Your task to perform on an android device: Empty the shopping cart on newegg. Search for "razer naga" on newegg, select the first entry, and add it to the cart. Image 0: 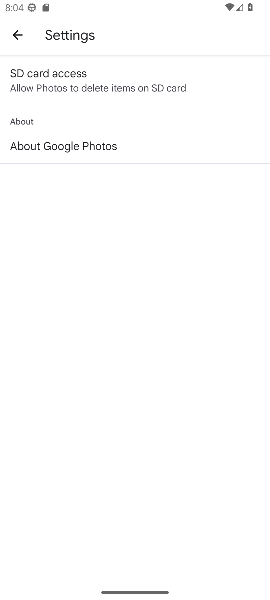
Step 0: press home button
Your task to perform on an android device: Empty the shopping cart on newegg. Search for "razer naga" on newegg, select the first entry, and add it to the cart. Image 1: 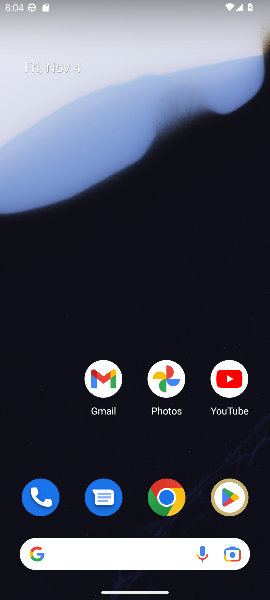
Step 1: click (166, 509)
Your task to perform on an android device: Empty the shopping cart on newegg. Search for "razer naga" on newegg, select the first entry, and add it to the cart. Image 2: 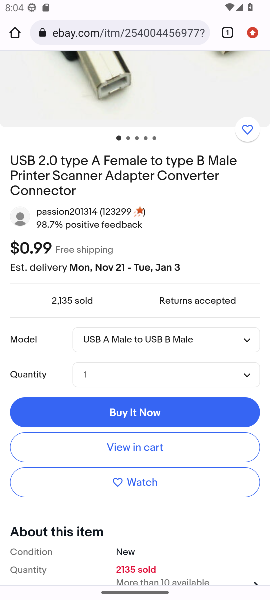
Step 2: click (57, 36)
Your task to perform on an android device: Empty the shopping cart on newegg. Search for "razer naga" on newegg, select the first entry, and add it to the cart. Image 3: 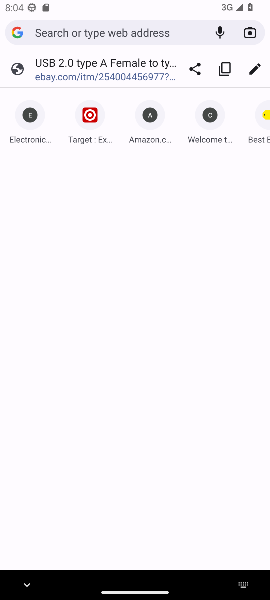
Step 3: type "newegg.com"
Your task to perform on an android device: Empty the shopping cart on newegg. Search for "razer naga" on newegg, select the first entry, and add it to the cart. Image 4: 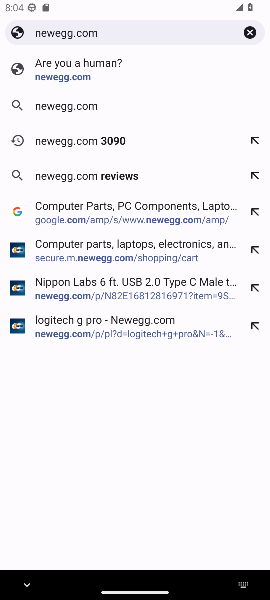
Step 4: click (78, 107)
Your task to perform on an android device: Empty the shopping cart on newegg. Search for "razer naga" on newegg, select the first entry, and add it to the cart. Image 5: 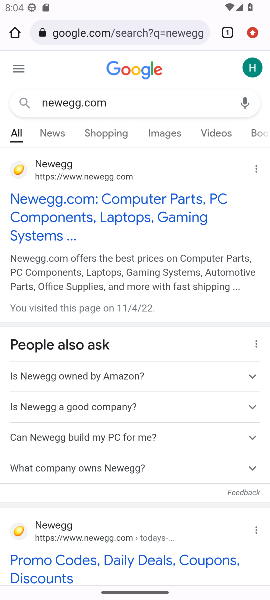
Step 5: click (42, 215)
Your task to perform on an android device: Empty the shopping cart on newegg. Search for "razer naga" on newegg, select the first entry, and add it to the cart. Image 6: 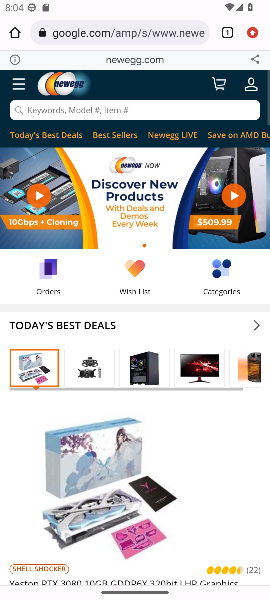
Step 6: click (217, 81)
Your task to perform on an android device: Empty the shopping cart on newegg. Search for "razer naga" on newegg, select the first entry, and add it to the cart. Image 7: 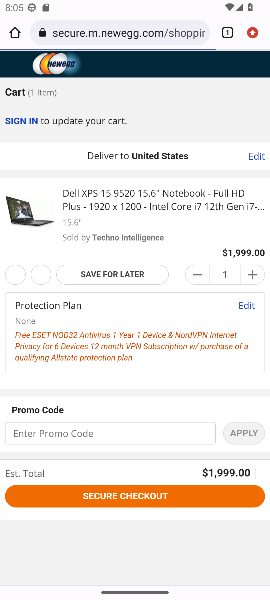
Step 7: click (217, 81)
Your task to perform on an android device: Empty the shopping cart on newegg. Search for "razer naga" on newegg, select the first entry, and add it to the cart. Image 8: 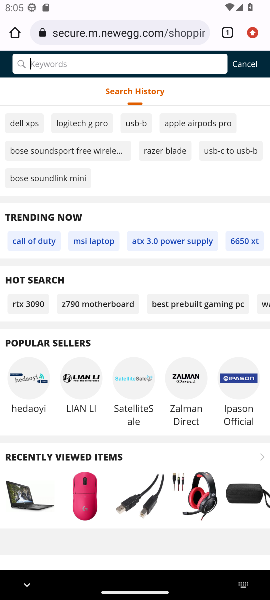
Step 8: drag from (230, 83) to (200, 272)
Your task to perform on an android device: Empty the shopping cart on newegg. Search for "razer naga" on newegg, select the first entry, and add it to the cart. Image 9: 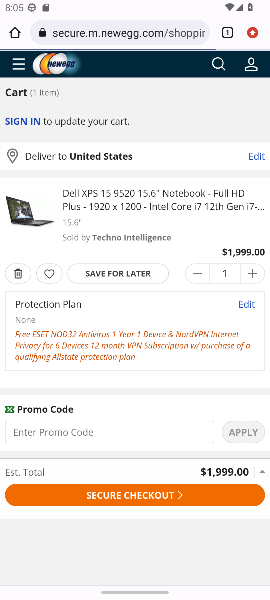
Step 9: click (237, 63)
Your task to perform on an android device: Empty the shopping cart on newegg. Search for "razer naga" on newegg, select the first entry, and add it to the cart. Image 10: 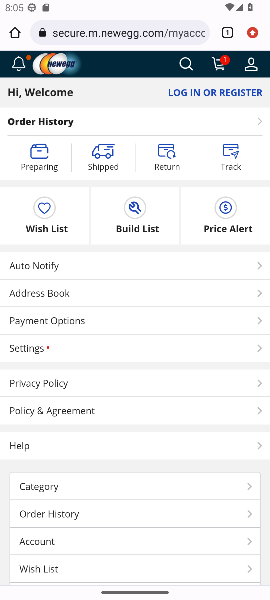
Step 10: click (217, 67)
Your task to perform on an android device: Empty the shopping cart on newegg. Search for "razer naga" on newegg, select the first entry, and add it to the cart. Image 11: 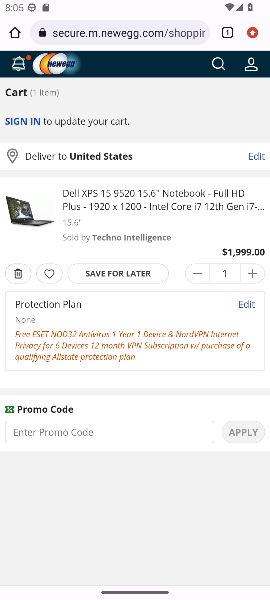
Step 11: click (18, 273)
Your task to perform on an android device: Empty the shopping cart on newegg. Search for "razer naga" on newegg, select the first entry, and add it to the cart. Image 12: 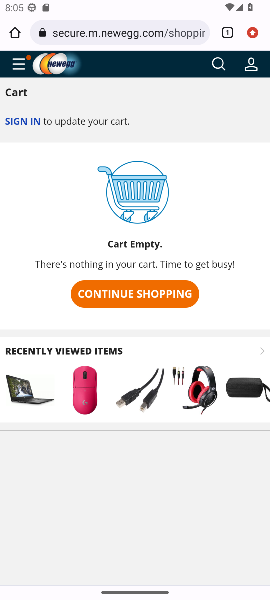
Step 12: click (122, 289)
Your task to perform on an android device: Empty the shopping cart on newegg. Search for "razer naga" on newegg, select the first entry, and add it to the cart. Image 13: 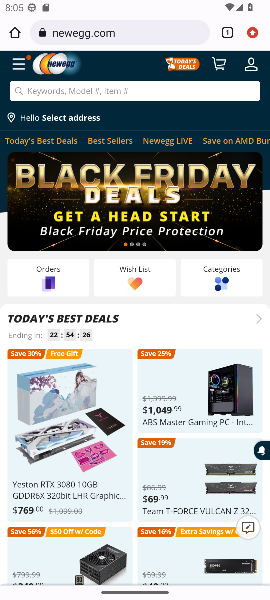
Step 13: click (67, 85)
Your task to perform on an android device: Empty the shopping cart on newegg. Search for "razer naga" on newegg, select the first entry, and add it to the cart. Image 14: 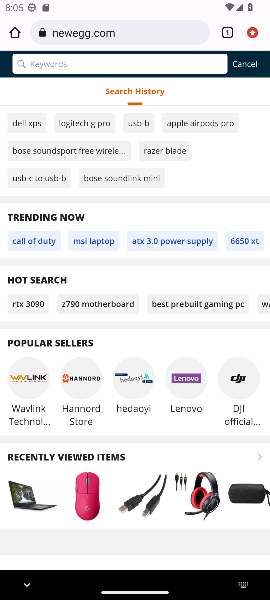
Step 14: type "razer naga"
Your task to perform on an android device: Empty the shopping cart on newegg. Search for "razer naga" on newegg, select the first entry, and add it to the cart. Image 15: 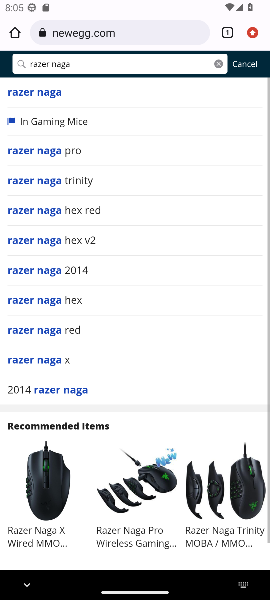
Step 15: click (31, 98)
Your task to perform on an android device: Empty the shopping cart on newegg. Search for "razer naga" on newegg, select the first entry, and add it to the cart. Image 16: 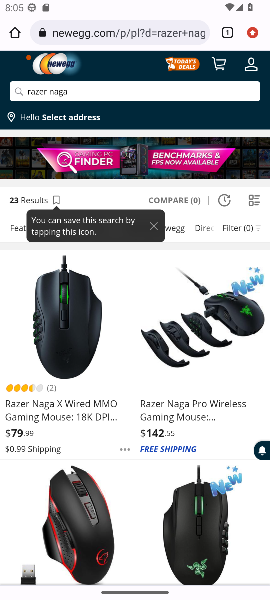
Step 16: click (62, 362)
Your task to perform on an android device: Empty the shopping cart on newegg. Search for "razer naga" on newegg, select the first entry, and add it to the cart. Image 17: 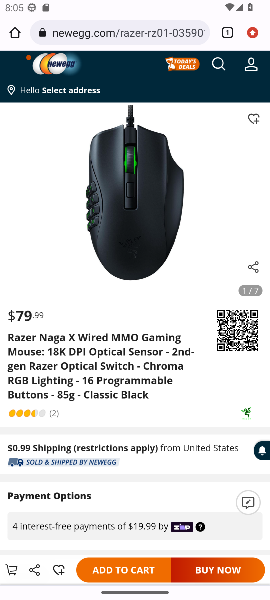
Step 17: click (107, 577)
Your task to perform on an android device: Empty the shopping cart on newegg. Search for "razer naga" on newegg, select the first entry, and add it to the cart. Image 18: 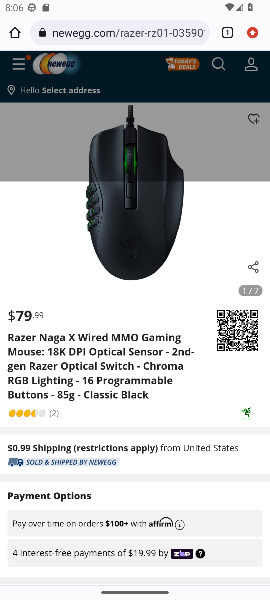
Step 18: task complete